Your task to perform on an android device: Open settings on Google Maps Image 0: 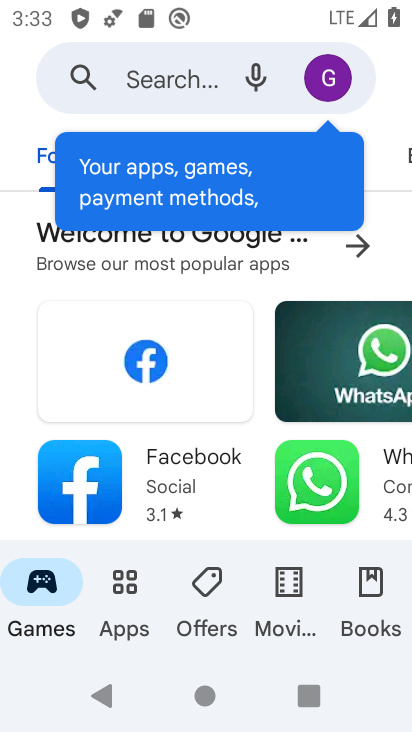
Step 0: press home button
Your task to perform on an android device: Open settings on Google Maps Image 1: 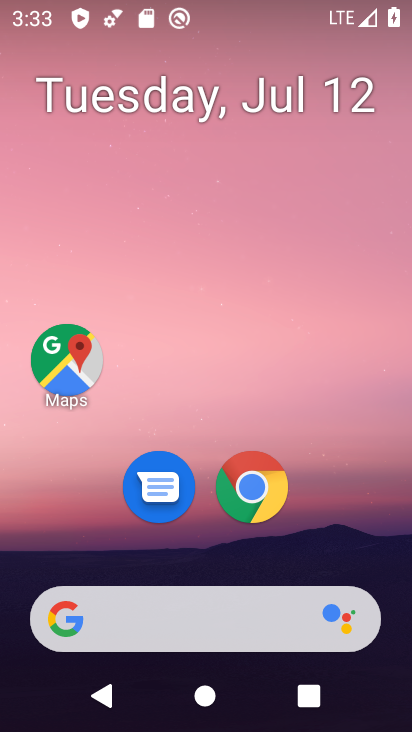
Step 1: drag from (188, 568) to (219, 172)
Your task to perform on an android device: Open settings on Google Maps Image 2: 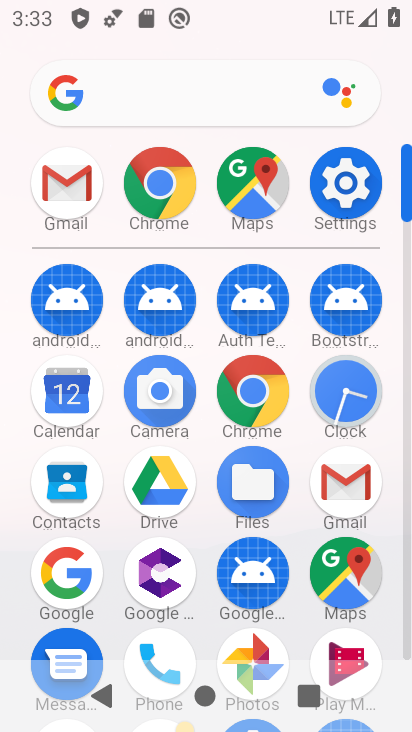
Step 2: click (348, 597)
Your task to perform on an android device: Open settings on Google Maps Image 3: 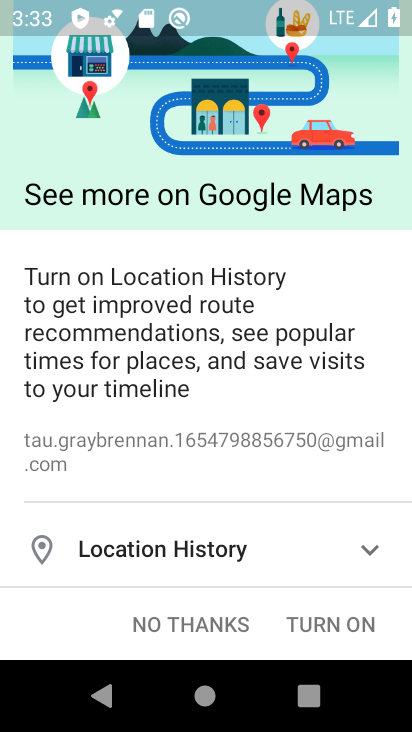
Step 3: click (346, 631)
Your task to perform on an android device: Open settings on Google Maps Image 4: 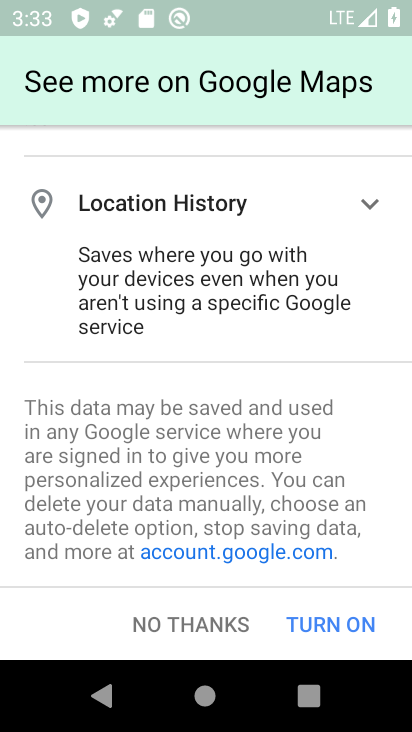
Step 4: click (358, 630)
Your task to perform on an android device: Open settings on Google Maps Image 5: 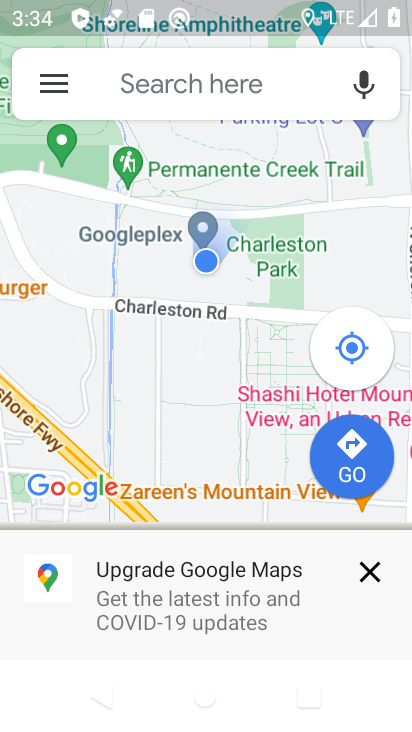
Step 5: click (369, 583)
Your task to perform on an android device: Open settings on Google Maps Image 6: 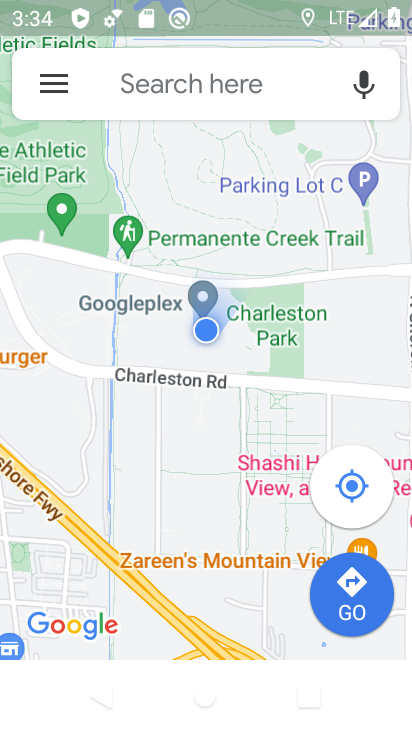
Step 6: click (48, 84)
Your task to perform on an android device: Open settings on Google Maps Image 7: 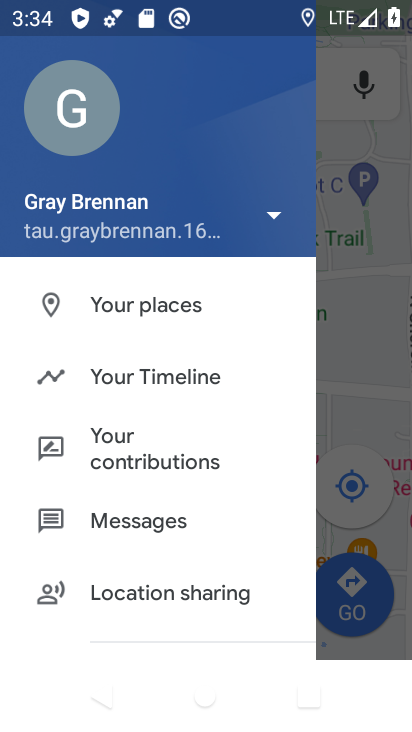
Step 7: drag from (118, 523) to (185, 151)
Your task to perform on an android device: Open settings on Google Maps Image 8: 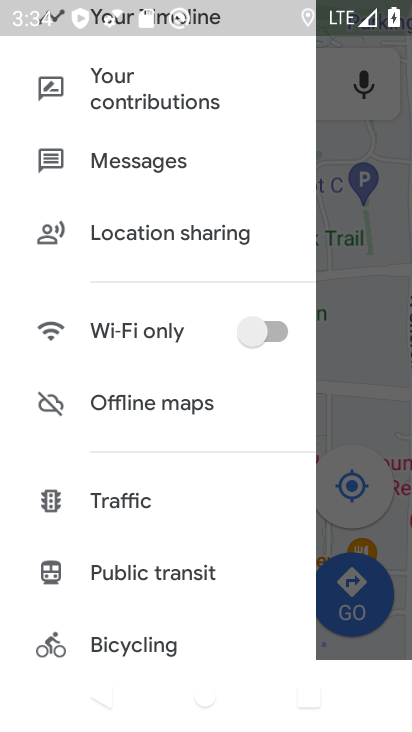
Step 8: drag from (126, 575) to (155, 380)
Your task to perform on an android device: Open settings on Google Maps Image 9: 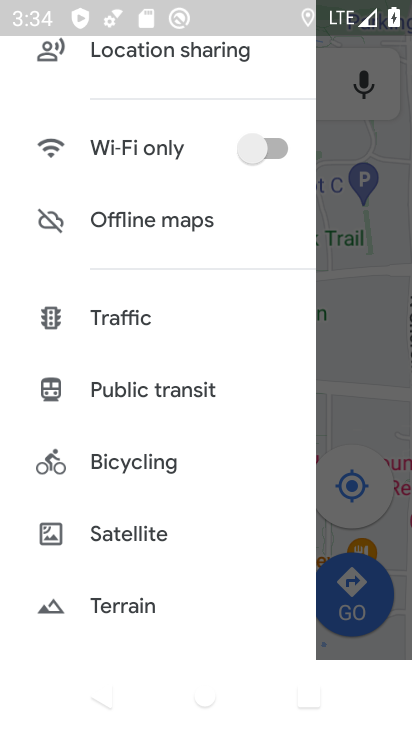
Step 9: drag from (127, 577) to (196, 263)
Your task to perform on an android device: Open settings on Google Maps Image 10: 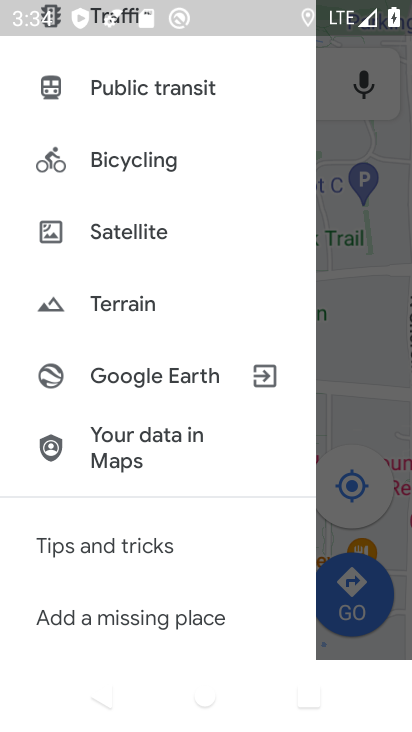
Step 10: drag from (131, 337) to (156, 55)
Your task to perform on an android device: Open settings on Google Maps Image 11: 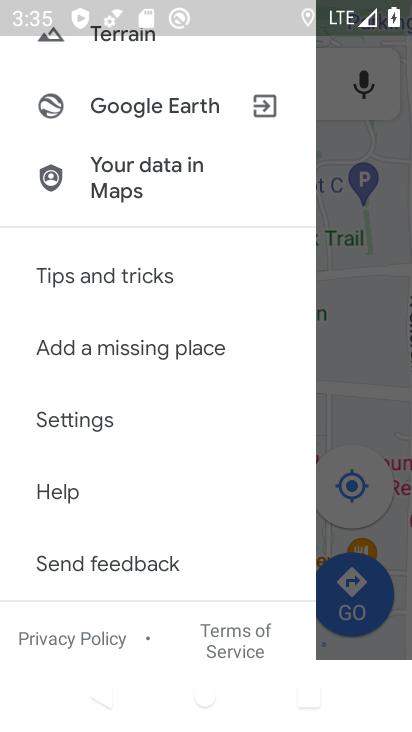
Step 11: click (96, 423)
Your task to perform on an android device: Open settings on Google Maps Image 12: 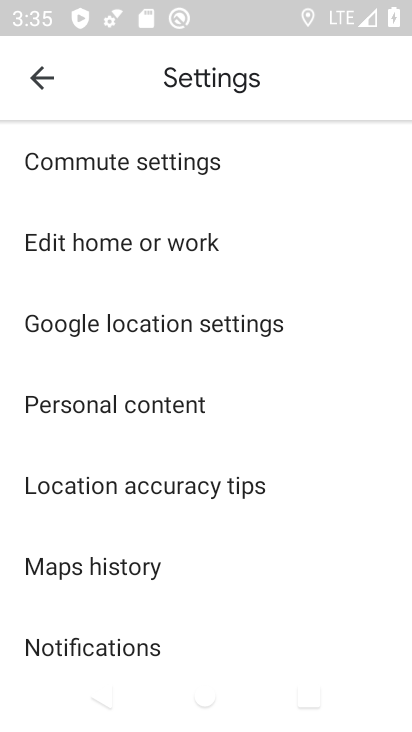
Step 12: task complete